Your task to perform on an android device: Go to settings Image 0: 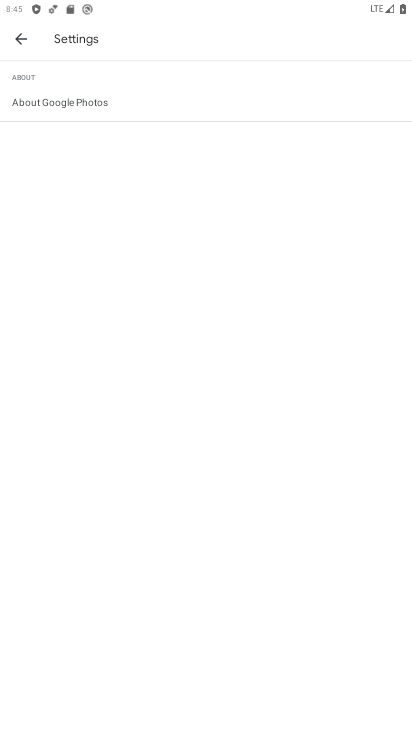
Step 0: press home button
Your task to perform on an android device: Go to settings Image 1: 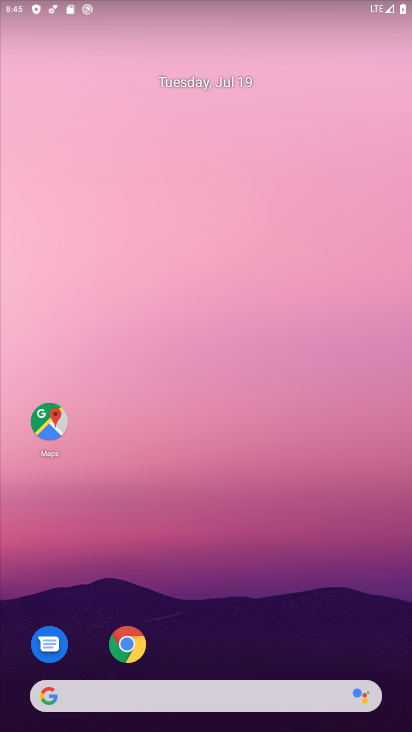
Step 1: drag from (239, 649) to (189, 213)
Your task to perform on an android device: Go to settings Image 2: 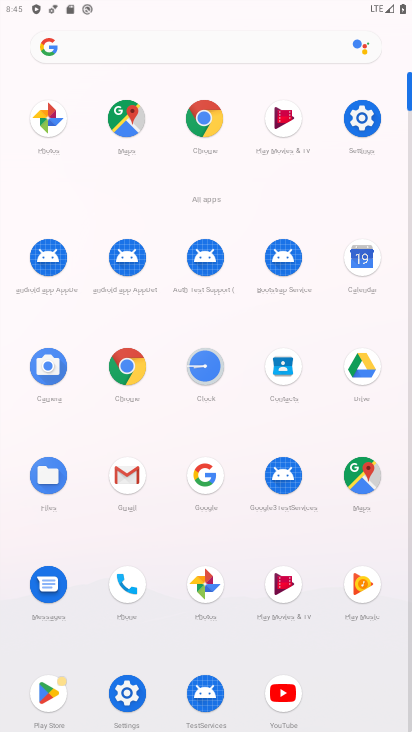
Step 2: click (367, 111)
Your task to perform on an android device: Go to settings Image 3: 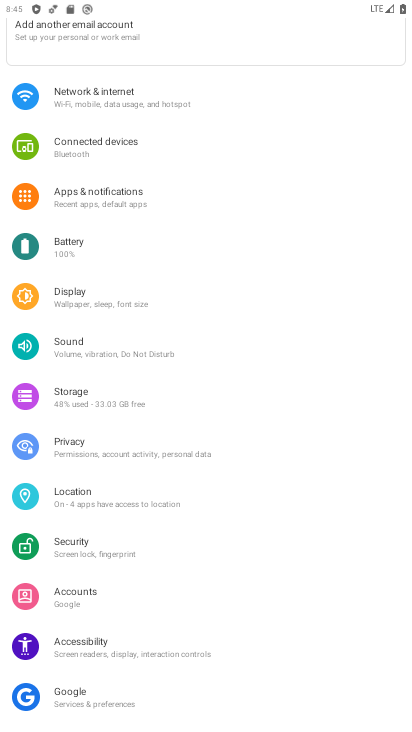
Step 3: task complete